Your task to perform on an android device: Go to notification settings Image 0: 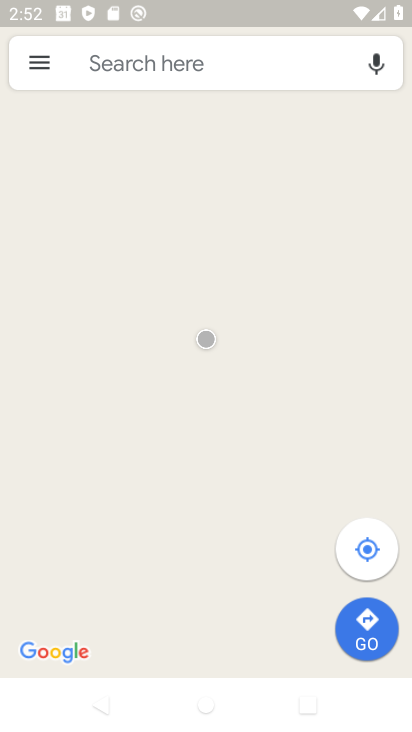
Step 0: press home button
Your task to perform on an android device: Go to notification settings Image 1: 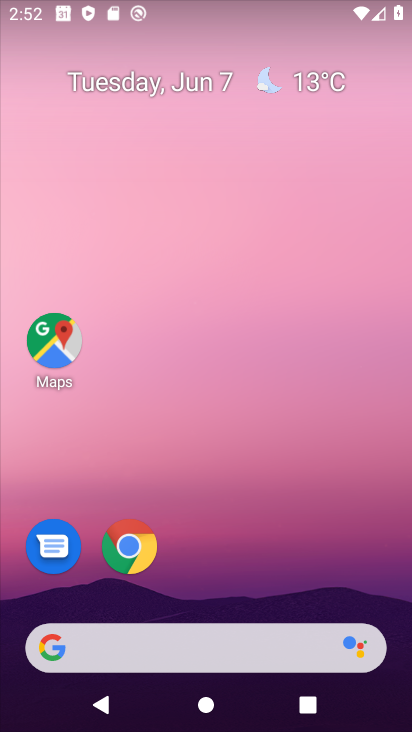
Step 1: drag from (181, 594) to (259, 174)
Your task to perform on an android device: Go to notification settings Image 2: 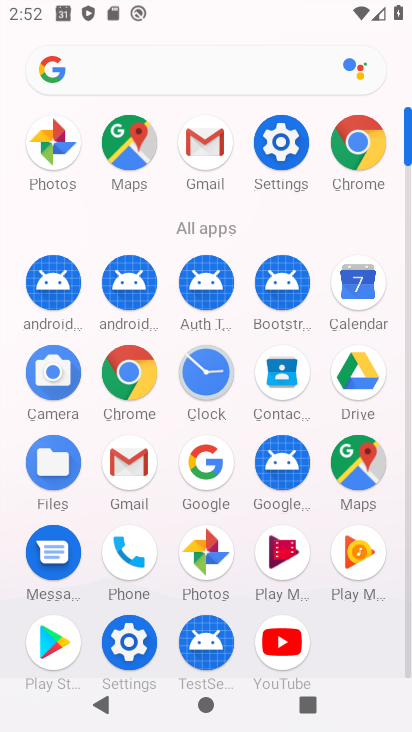
Step 2: click (288, 145)
Your task to perform on an android device: Go to notification settings Image 3: 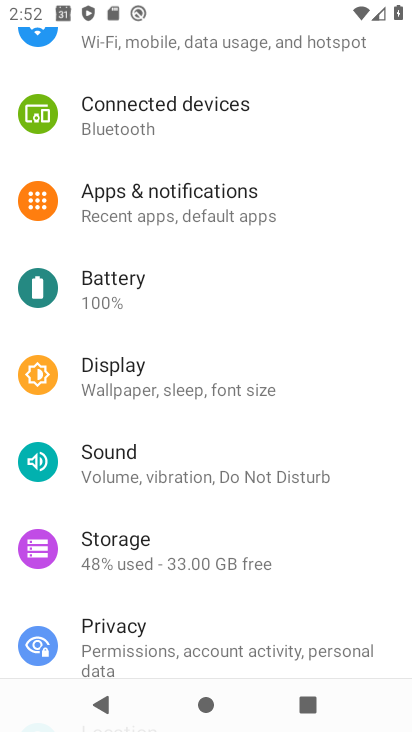
Step 3: drag from (239, 89) to (168, 246)
Your task to perform on an android device: Go to notification settings Image 4: 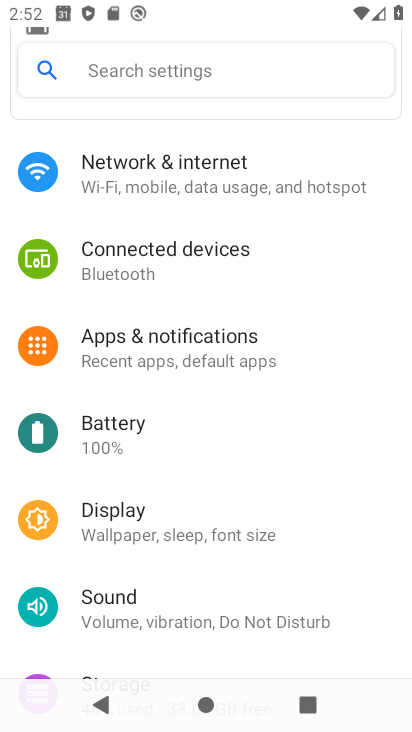
Step 4: click (130, 342)
Your task to perform on an android device: Go to notification settings Image 5: 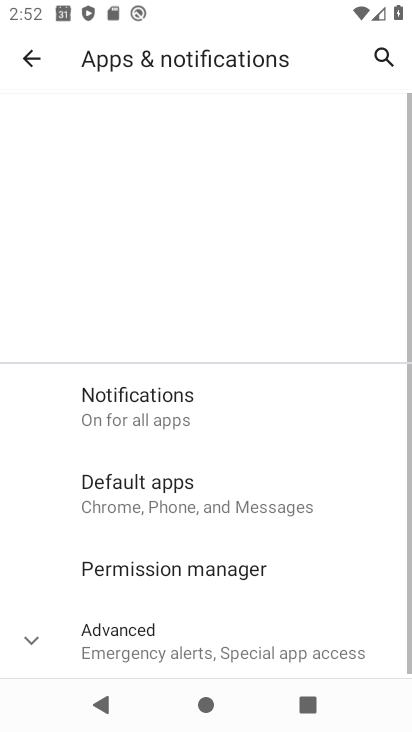
Step 5: click (136, 340)
Your task to perform on an android device: Go to notification settings Image 6: 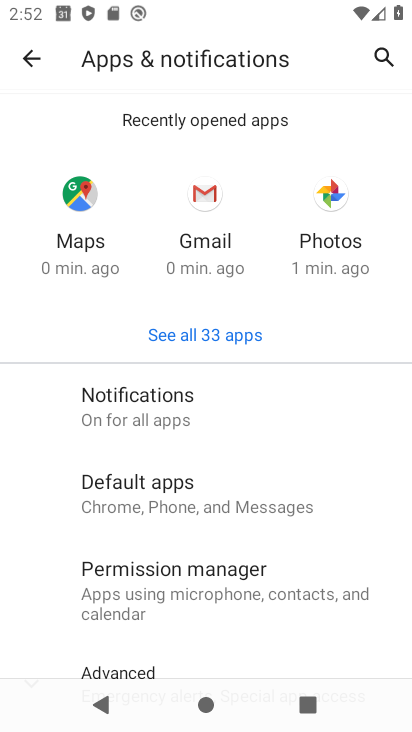
Step 6: task complete